Your task to perform on an android device: allow notifications from all sites in the chrome app Image 0: 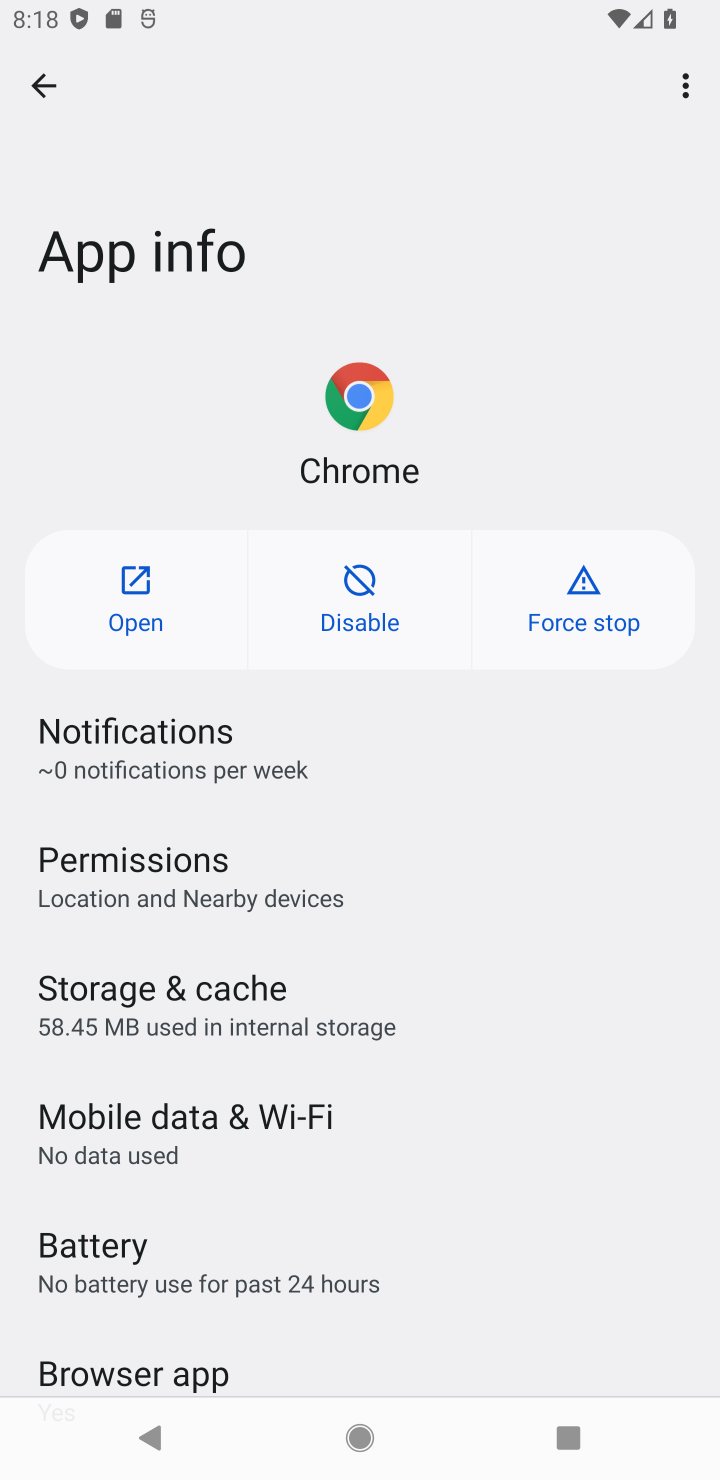
Step 0: task complete